Your task to perform on an android device: Go to Google Image 0: 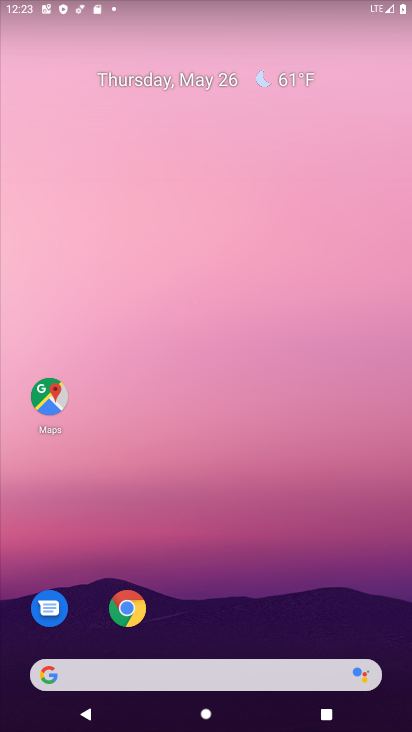
Step 0: click (130, 611)
Your task to perform on an android device: Go to Google Image 1: 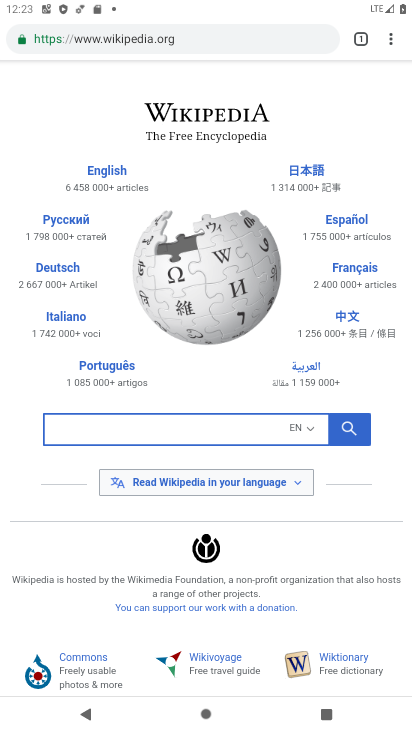
Step 1: task complete